Your task to perform on an android device: install app "Google Find My Device" Image 0: 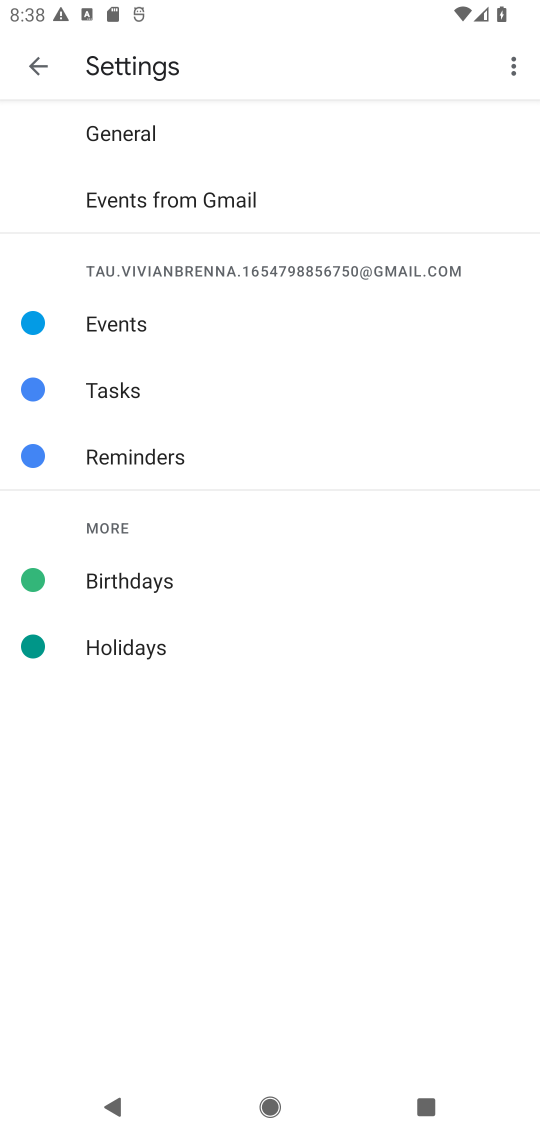
Step 0: press home button
Your task to perform on an android device: install app "Google Find My Device" Image 1: 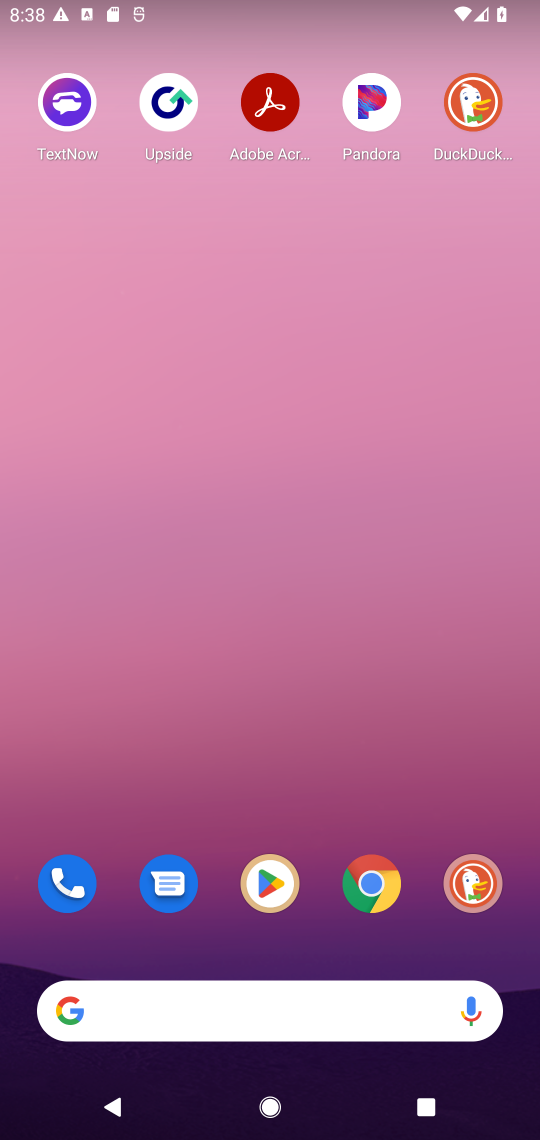
Step 1: drag from (257, 938) to (257, 136)
Your task to perform on an android device: install app "Google Find My Device" Image 2: 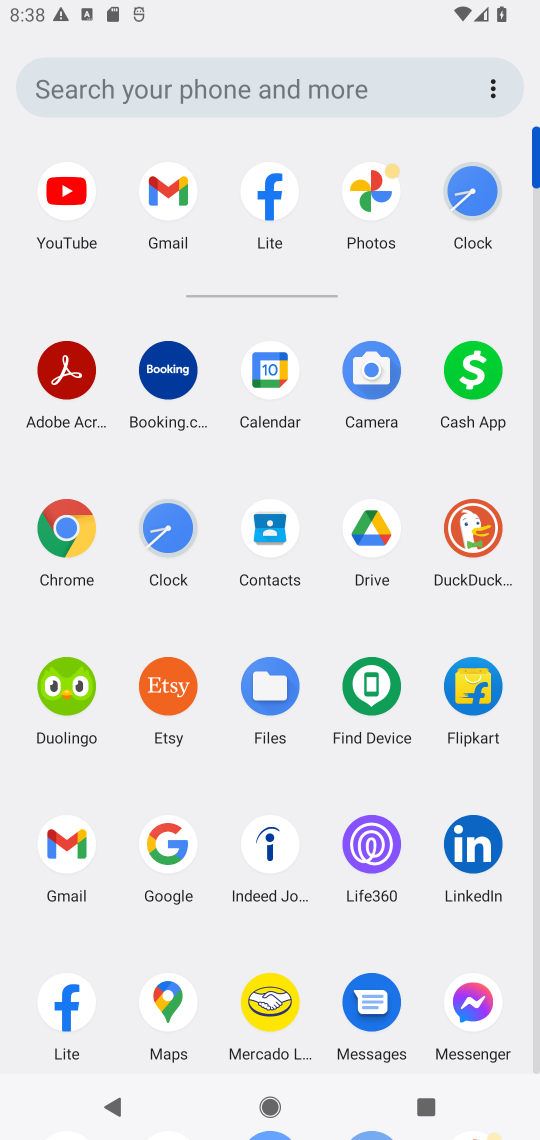
Step 2: drag from (183, 959) to (193, 262)
Your task to perform on an android device: install app "Google Find My Device" Image 3: 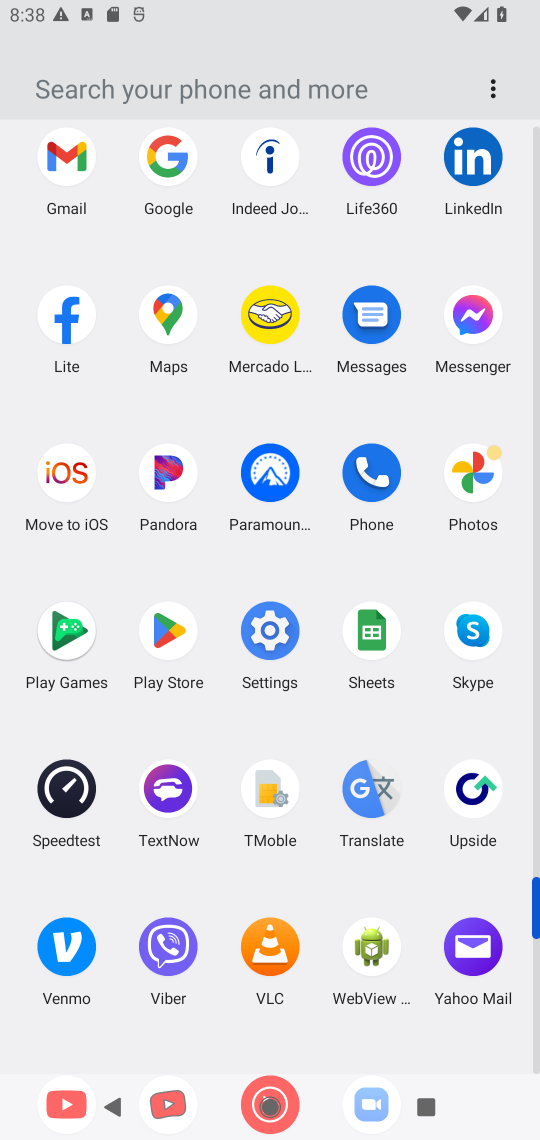
Step 3: click (165, 623)
Your task to perform on an android device: install app "Google Find My Device" Image 4: 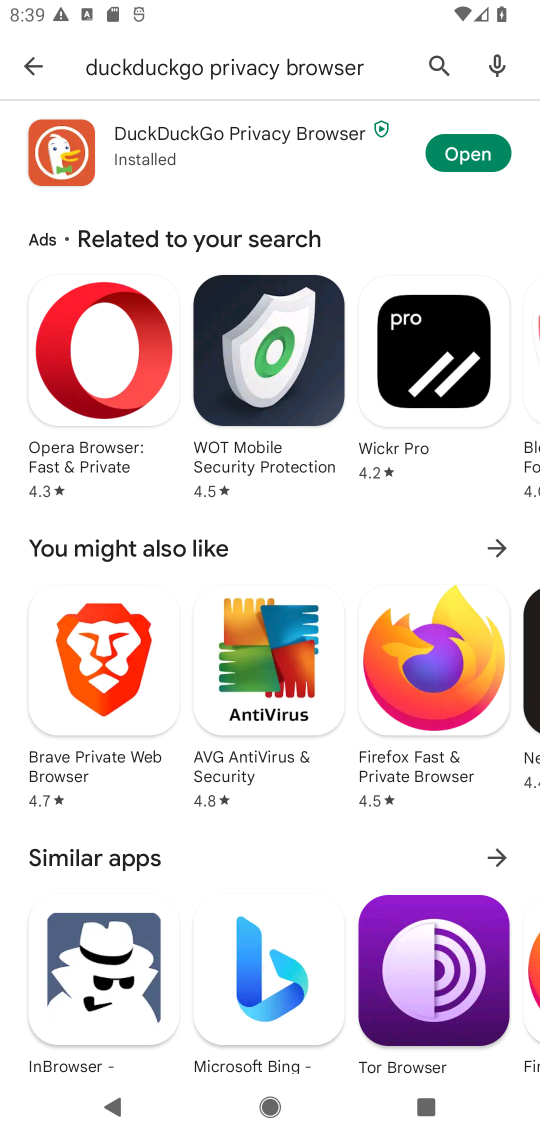
Step 4: click (440, 66)
Your task to perform on an android device: install app "Google Find My Device" Image 5: 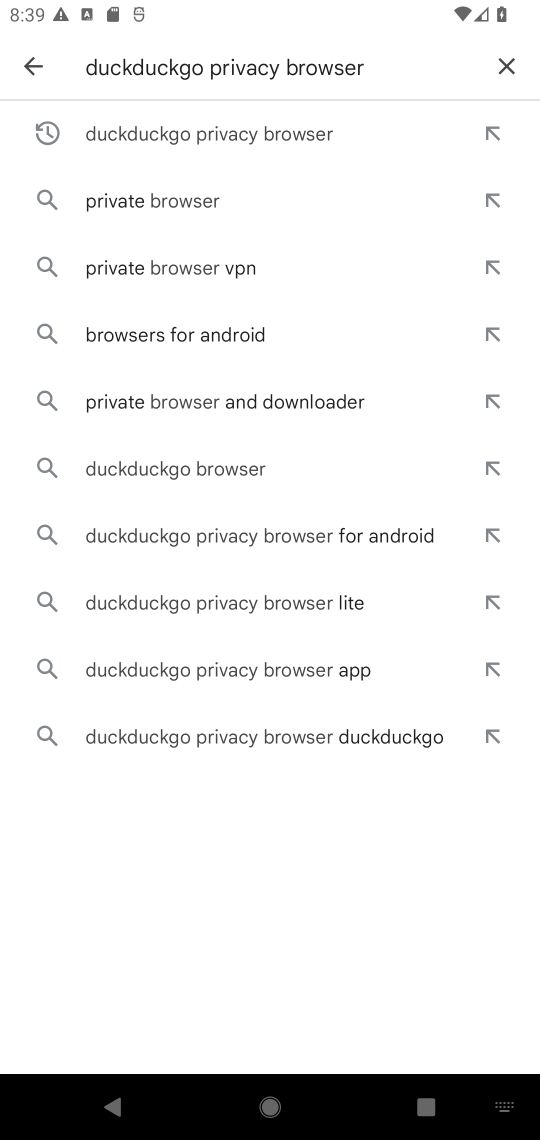
Step 5: click (518, 54)
Your task to perform on an android device: install app "Google Find My Device" Image 6: 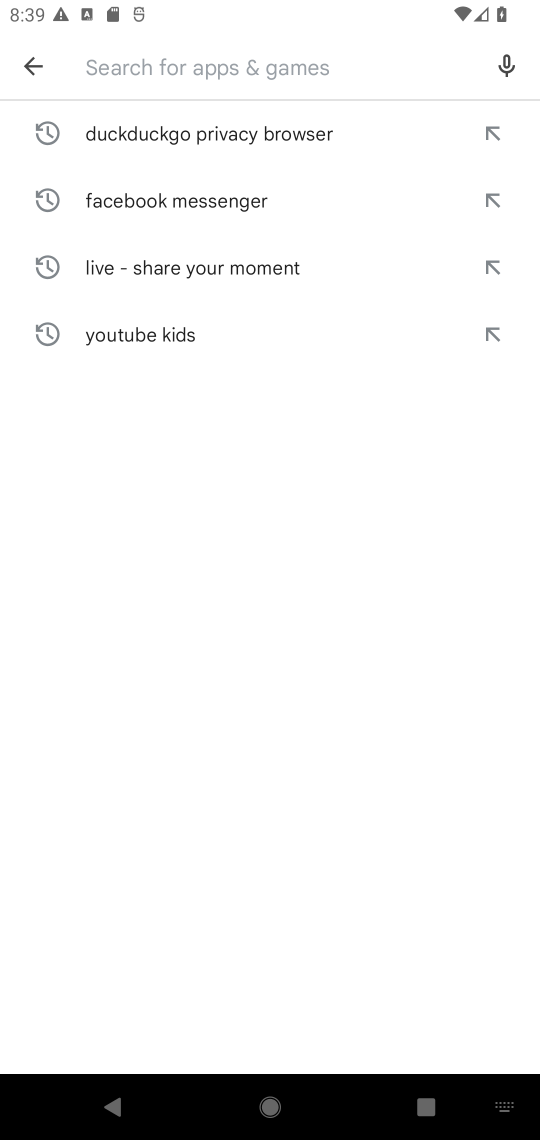
Step 6: type "Google Find My Device"
Your task to perform on an android device: install app "Google Find My Device" Image 7: 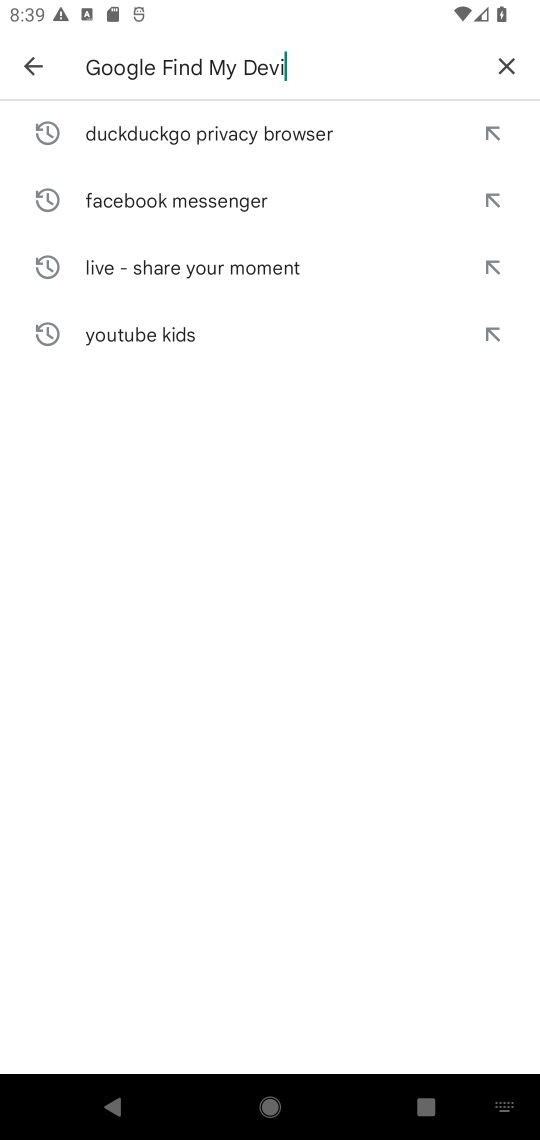
Step 7: type ""
Your task to perform on an android device: install app "Google Find My Device" Image 8: 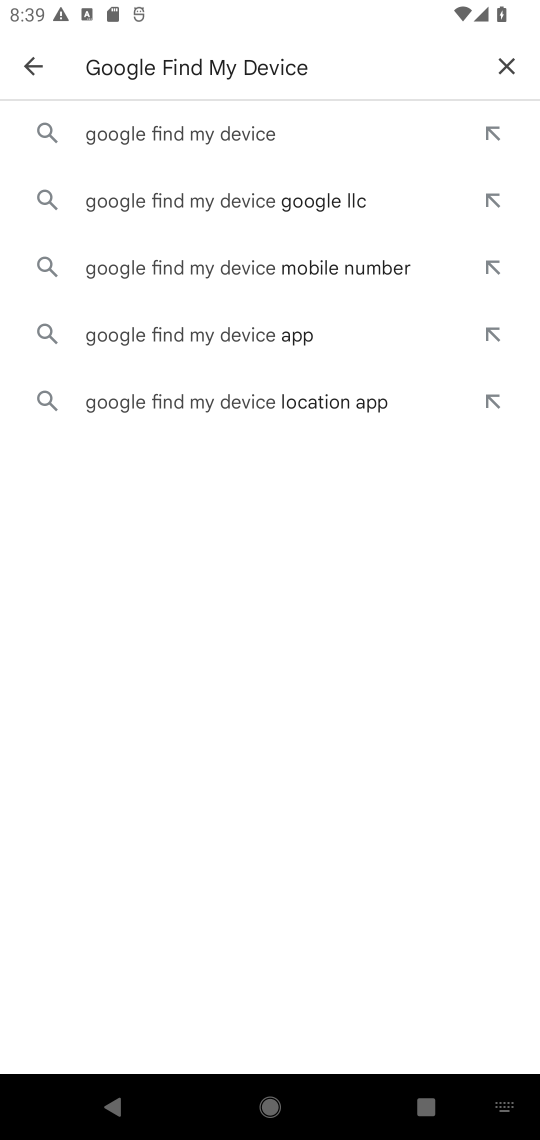
Step 8: click (94, 133)
Your task to perform on an android device: install app "Google Find My Device" Image 9: 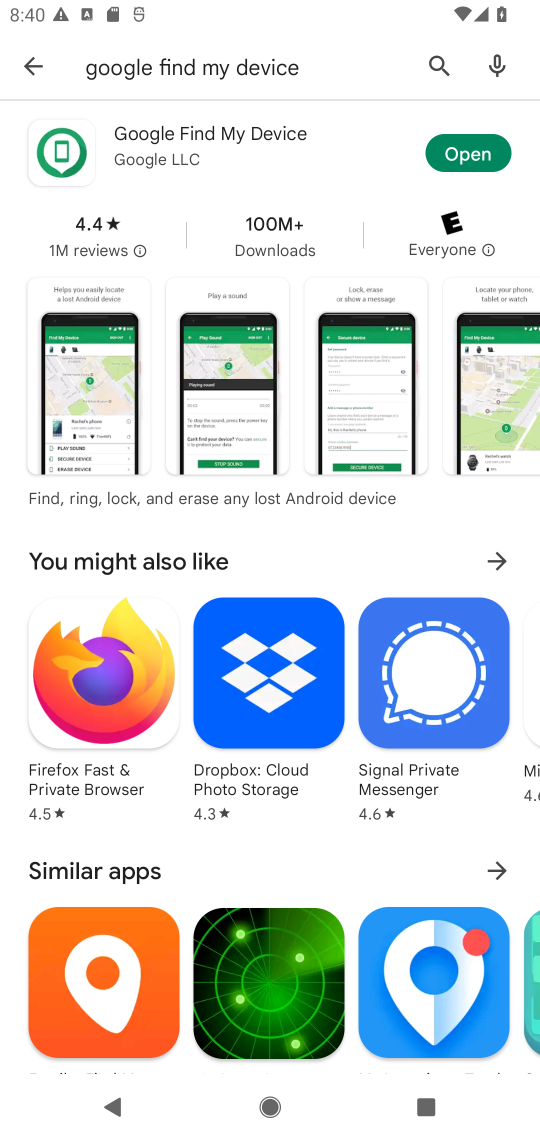
Step 9: task complete